Your task to perform on an android device: Open the calendar app, open the side menu, and click the "Day" option Image 0: 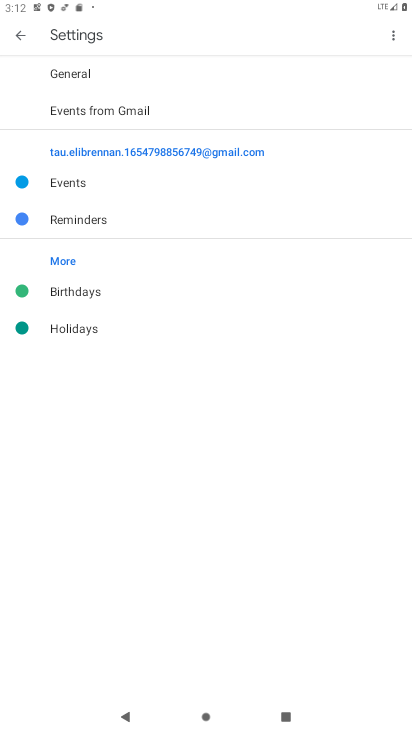
Step 0: press home button
Your task to perform on an android device: Open the calendar app, open the side menu, and click the "Day" option Image 1: 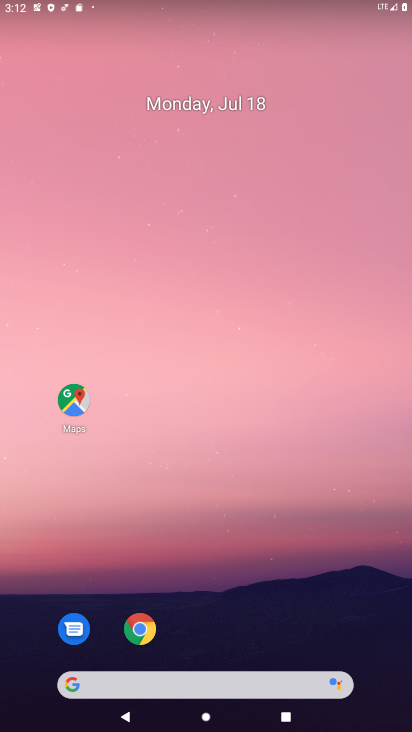
Step 1: drag from (208, 620) to (176, 10)
Your task to perform on an android device: Open the calendar app, open the side menu, and click the "Day" option Image 2: 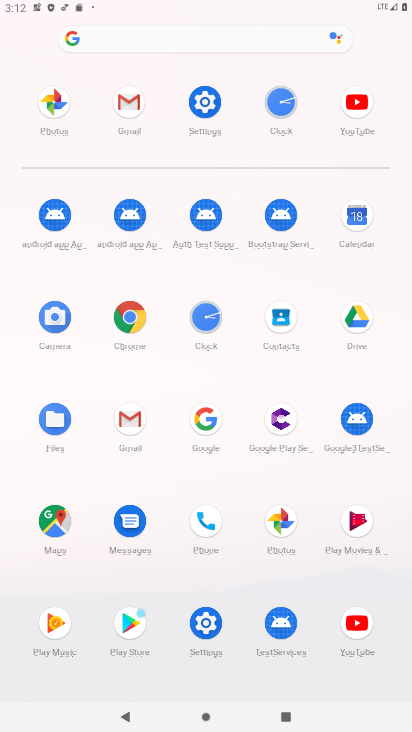
Step 2: click (354, 223)
Your task to perform on an android device: Open the calendar app, open the side menu, and click the "Day" option Image 3: 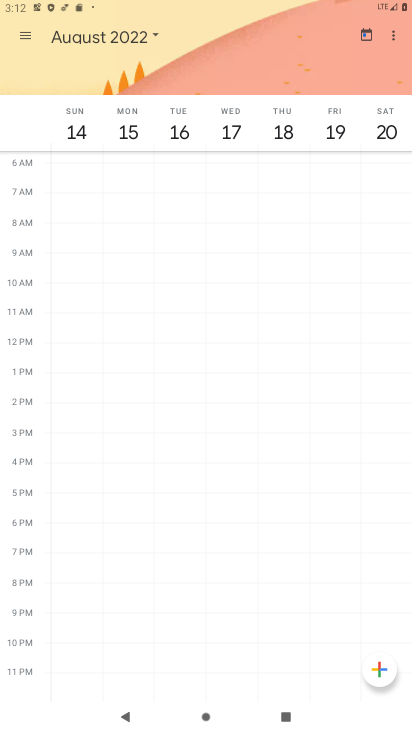
Step 3: click (22, 33)
Your task to perform on an android device: Open the calendar app, open the side menu, and click the "Day" option Image 4: 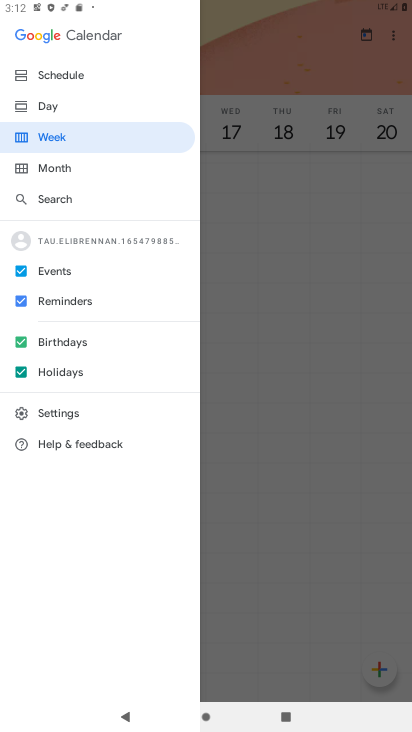
Step 4: click (49, 110)
Your task to perform on an android device: Open the calendar app, open the side menu, and click the "Day" option Image 5: 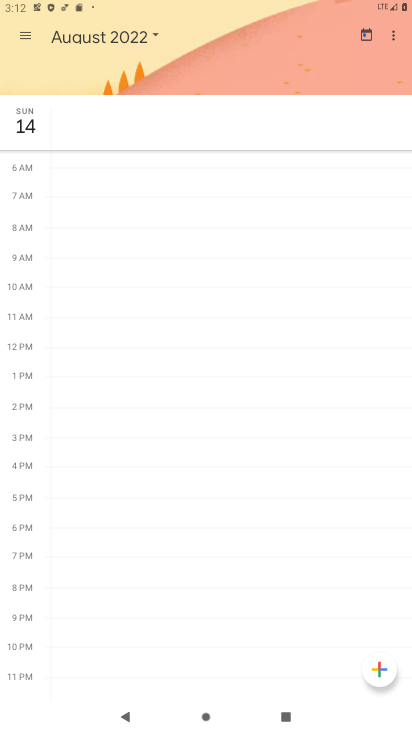
Step 5: task complete